Your task to perform on an android device: check data usage Image 0: 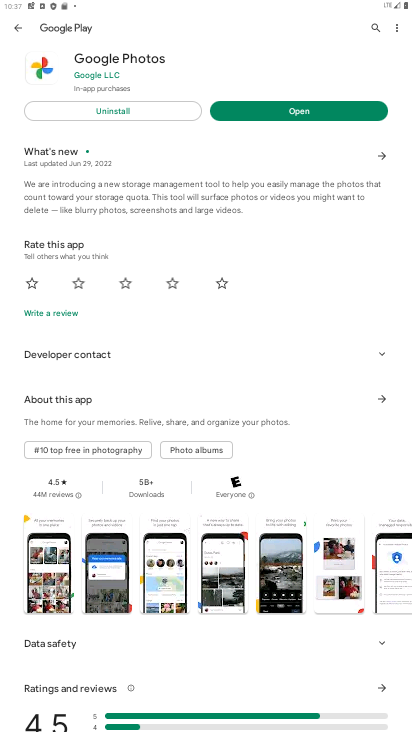
Step 0: click (12, 24)
Your task to perform on an android device: check data usage Image 1: 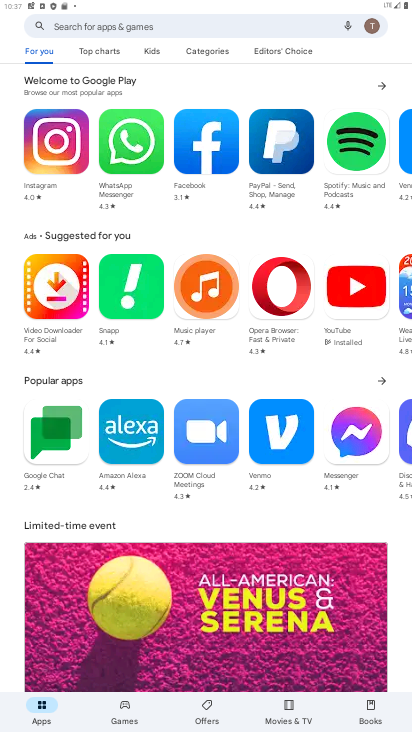
Step 1: press home button
Your task to perform on an android device: check data usage Image 2: 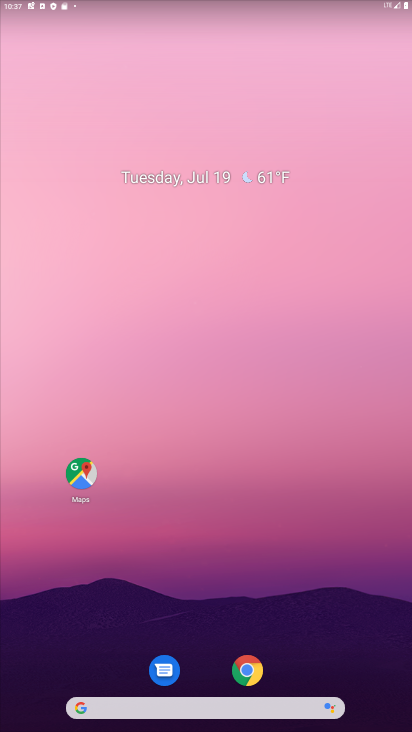
Step 2: drag from (218, 730) to (224, 1)
Your task to perform on an android device: check data usage Image 3: 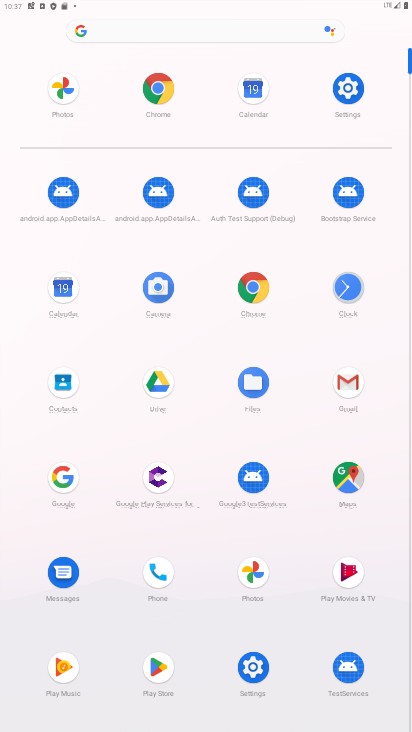
Step 3: click (350, 93)
Your task to perform on an android device: check data usage Image 4: 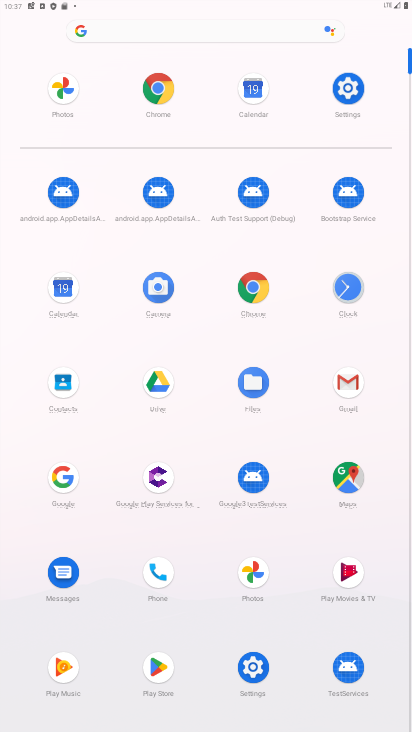
Step 4: click (350, 93)
Your task to perform on an android device: check data usage Image 5: 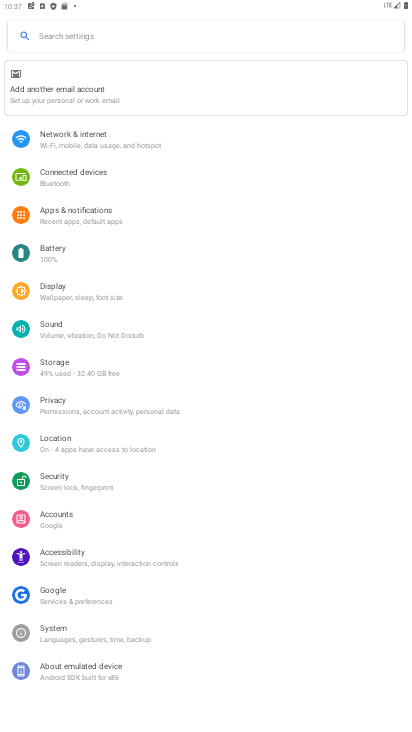
Step 5: click (94, 135)
Your task to perform on an android device: check data usage Image 6: 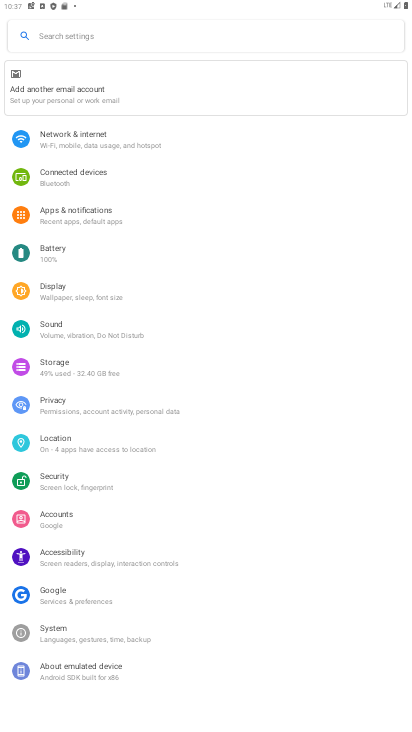
Step 6: click (94, 135)
Your task to perform on an android device: check data usage Image 7: 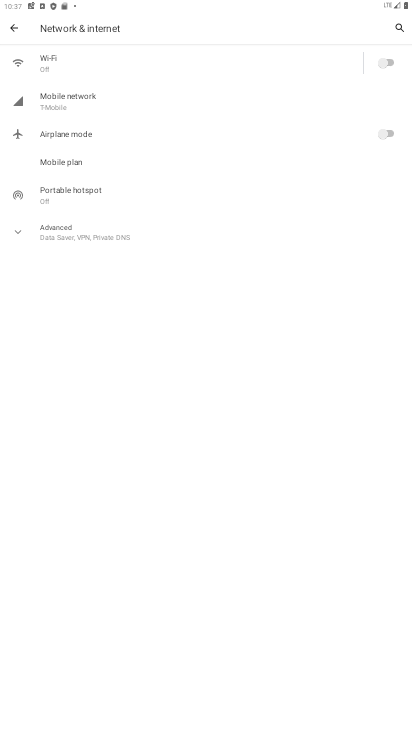
Step 7: click (81, 108)
Your task to perform on an android device: check data usage Image 8: 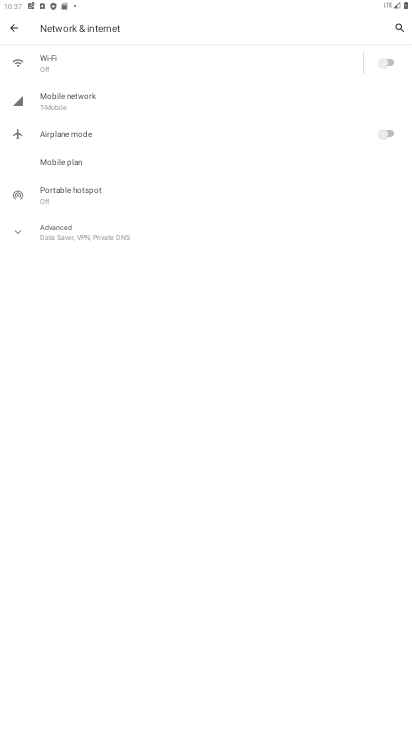
Step 8: click (81, 108)
Your task to perform on an android device: check data usage Image 9: 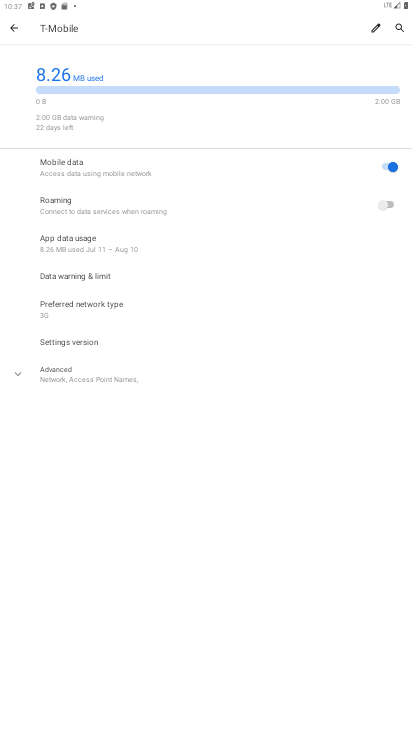
Step 9: task complete